Your task to perform on an android device: Go to network settings Image 0: 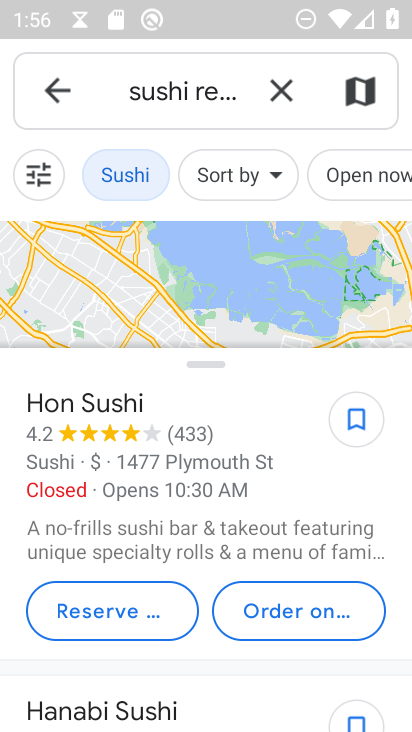
Step 0: press home button
Your task to perform on an android device: Go to network settings Image 1: 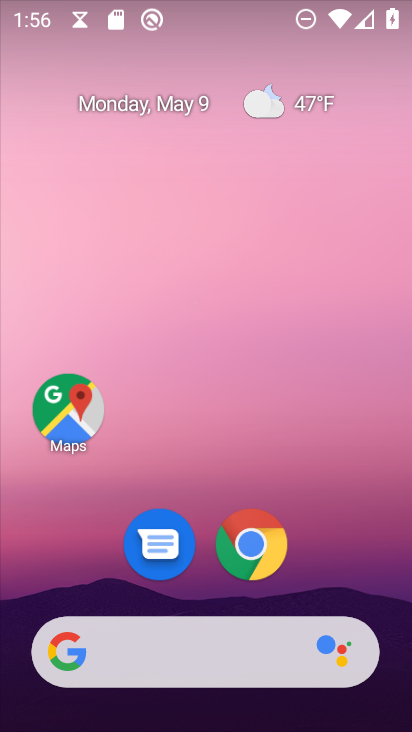
Step 1: drag from (373, 547) to (345, 85)
Your task to perform on an android device: Go to network settings Image 2: 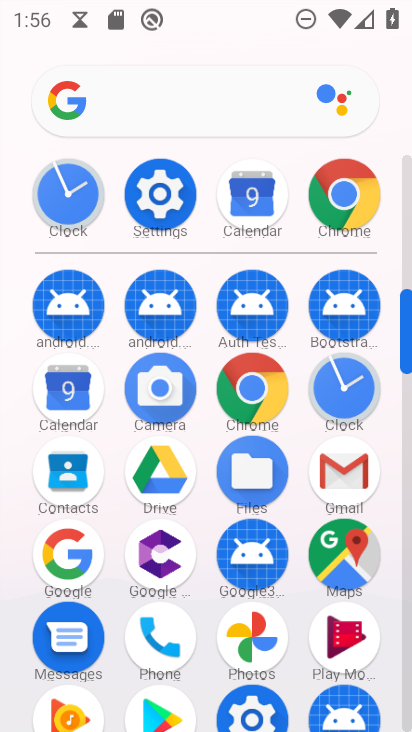
Step 2: click (146, 202)
Your task to perform on an android device: Go to network settings Image 3: 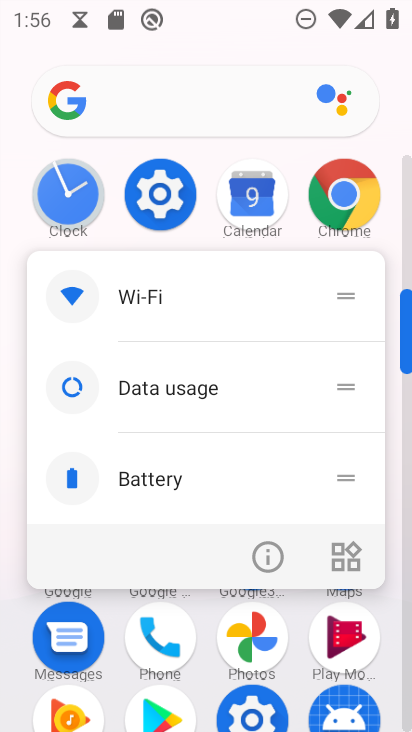
Step 3: click (167, 180)
Your task to perform on an android device: Go to network settings Image 4: 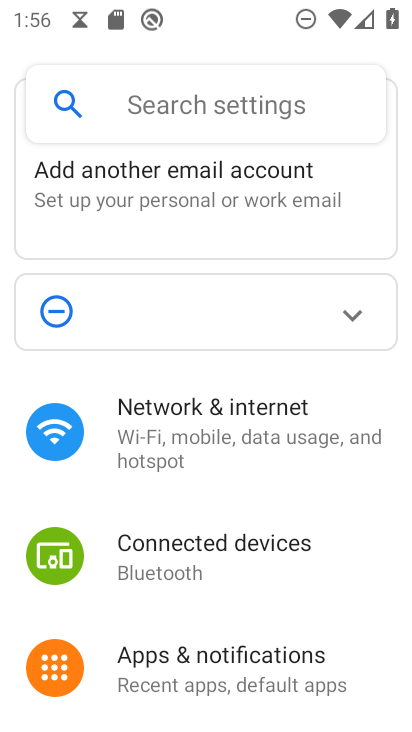
Step 4: click (166, 434)
Your task to perform on an android device: Go to network settings Image 5: 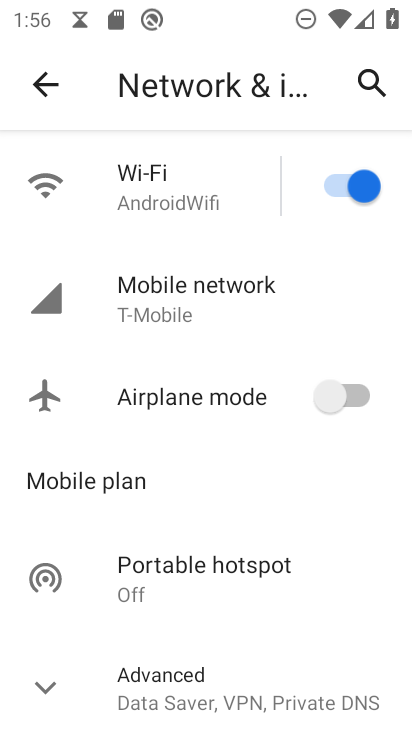
Step 5: click (155, 459)
Your task to perform on an android device: Go to network settings Image 6: 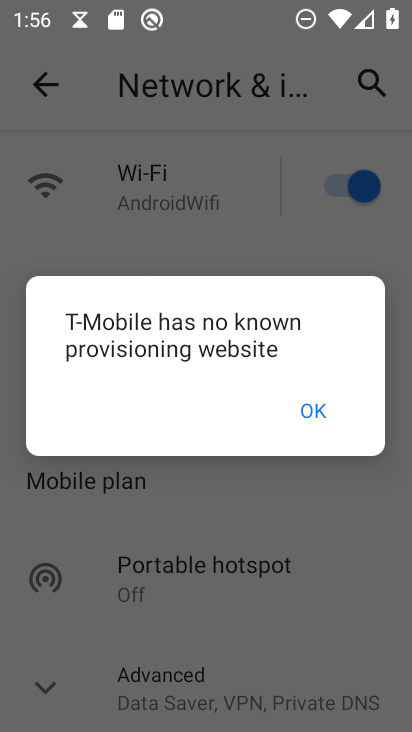
Step 6: click (304, 424)
Your task to perform on an android device: Go to network settings Image 7: 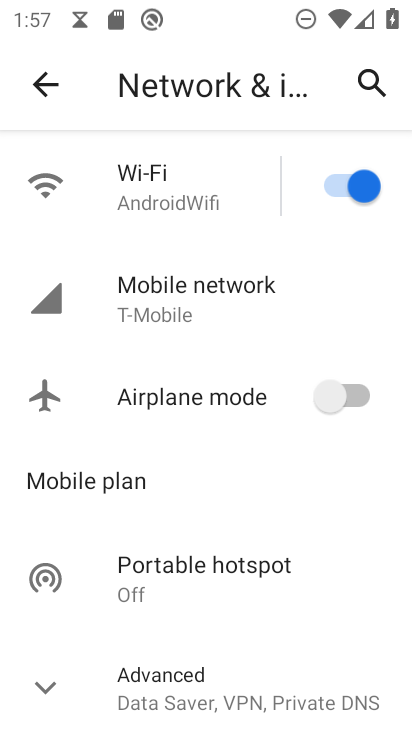
Step 7: click (148, 310)
Your task to perform on an android device: Go to network settings Image 8: 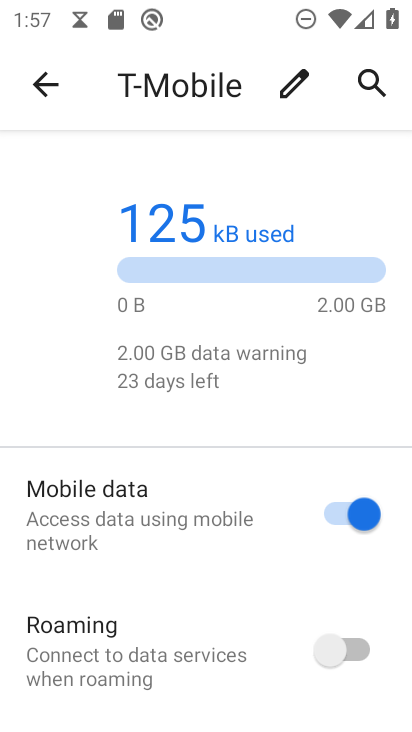
Step 8: task complete